Your task to perform on an android device: When is my next appointment? Image 0: 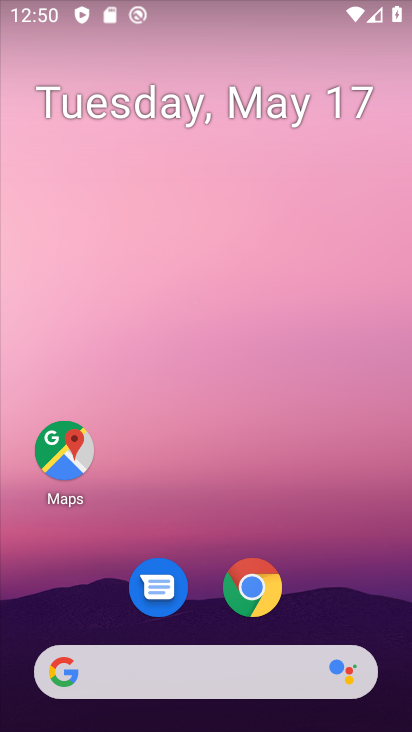
Step 0: drag from (345, 613) to (228, 333)
Your task to perform on an android device: When is my next appointment? Image 1: 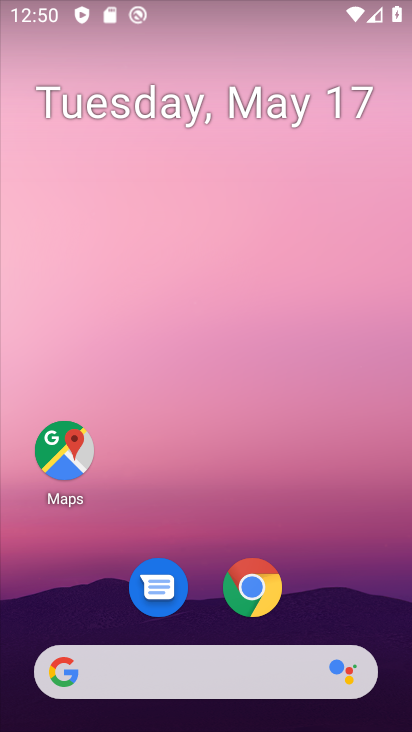
Step 1: click (292, 546)
Your task to perform on an android device: When is my next appointment? Image 2: 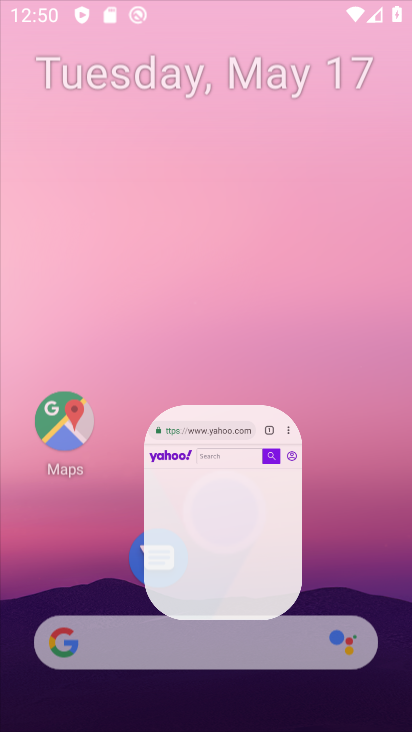
Step 2: drag from (326, 582) to (155, 119)
Your task to perform on an android device: When is my next appointment? Image 3: 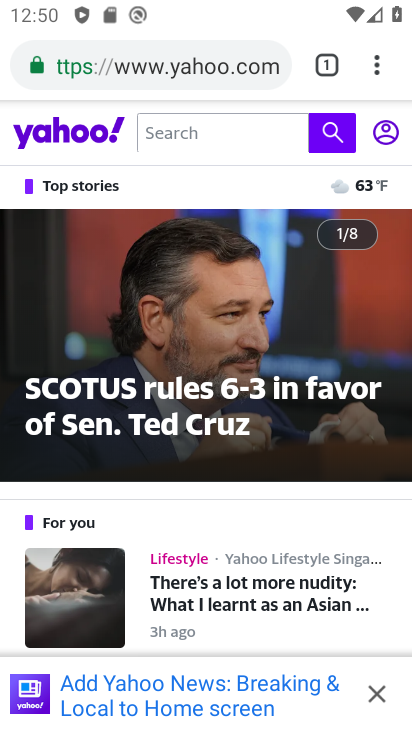
Step 3: press home button
Your task to perform on an android device: When is my next appointment? Image 4: 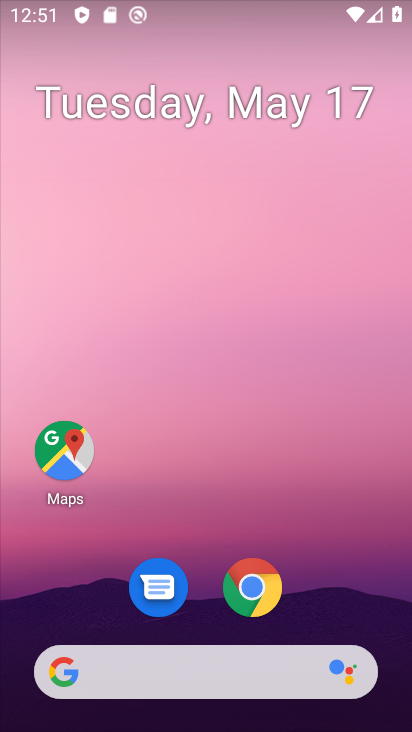
Step 4: drag from (358, 586) to (241, 196)
Your task to perform on an android device: When is my next appointment? Image 5: 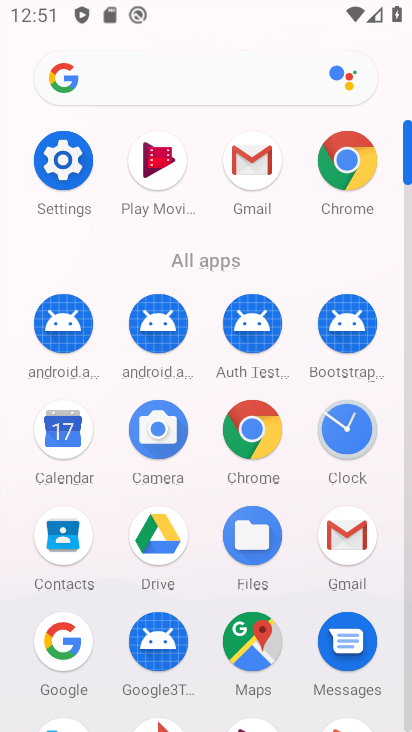
Step 5: click (91, 431)
Your task to perform on an android device: When is my next appointment? Image 6: 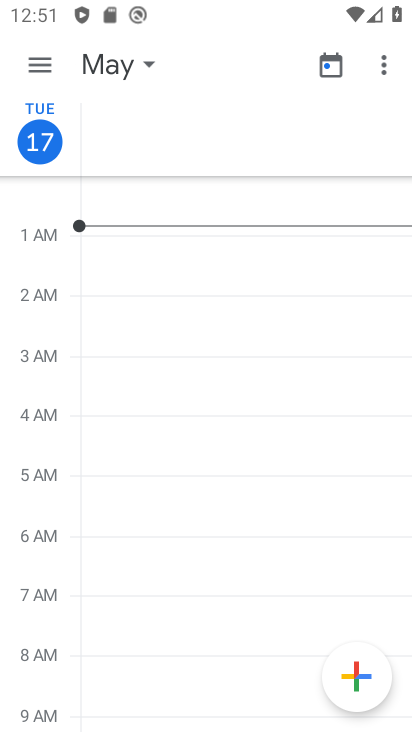
Step 6: click (39, 53)
Your task to perform on an android device: When is my next appointment? Image 7: 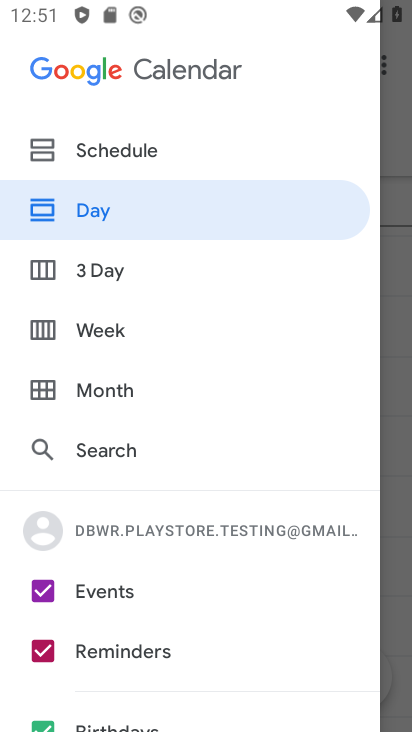
Step 7: click (112, 391)
Your task to perform on an android device: When is my next appointment? Image 8: 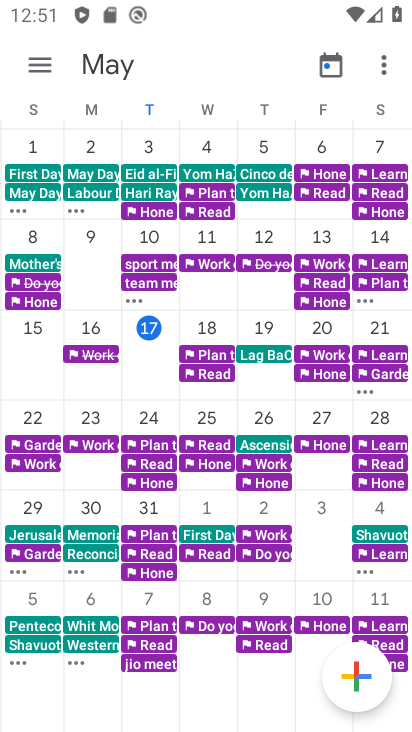
Step 8: task complete